Your task to perform on an android device: Open calendar and show me the fourth week of next month Image 0: 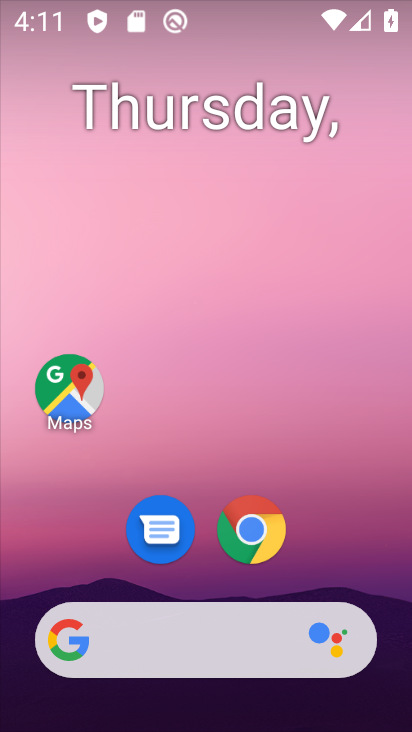
Step 0: click (192, 238)
Your task to perform on an android device: Open calendar and show me the fourth week of next month Image 1: 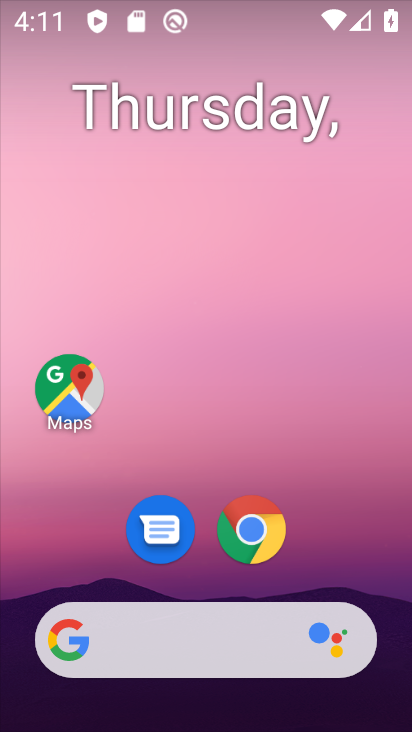
Step 1: drag from (97, 554) to (210, 142)
Your task to perform on an android device: Open calendar and show me the fourth week of next month Image 2: 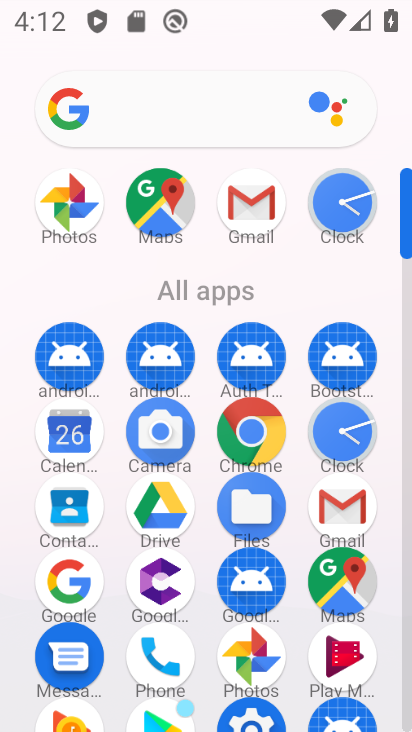
Step 2: click (92, 442)
Your task to perform on an android device: Open calendar and show me the fourth week of next month Image 3: 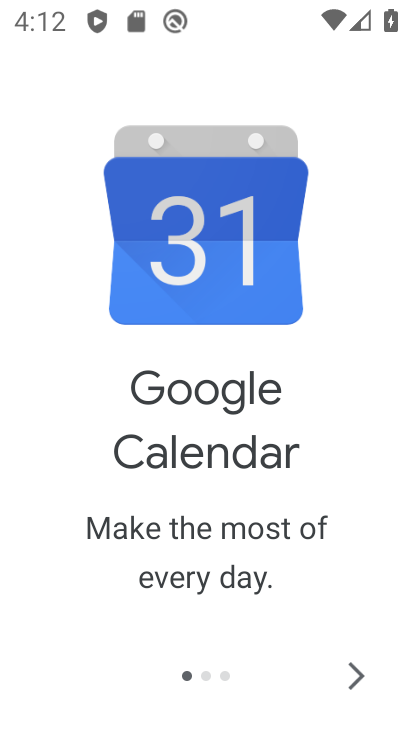
Step 3: click (359, 666)
Your task to perform on an android device: Open calendar and show me the fourth week of next month Image 4: 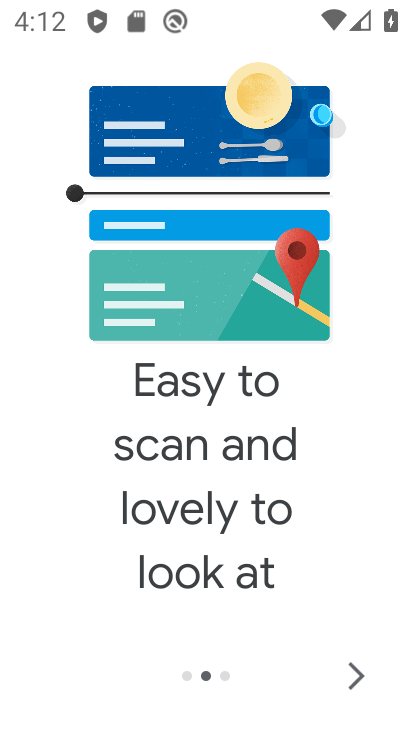
Step 4: click (364, 690)
Your task to perform on an android device: Open calendar and show me the fourth week of next month Image 5: 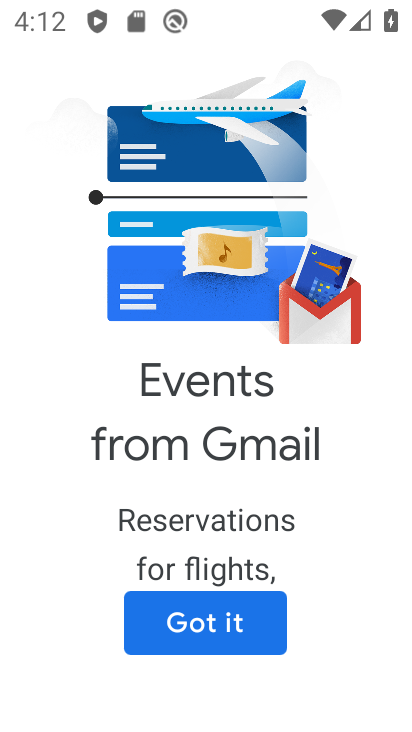
Step 5: click (265, 612)
Your task to perform on an android device: Open calendar and show me the fourth week of next month Image 6: 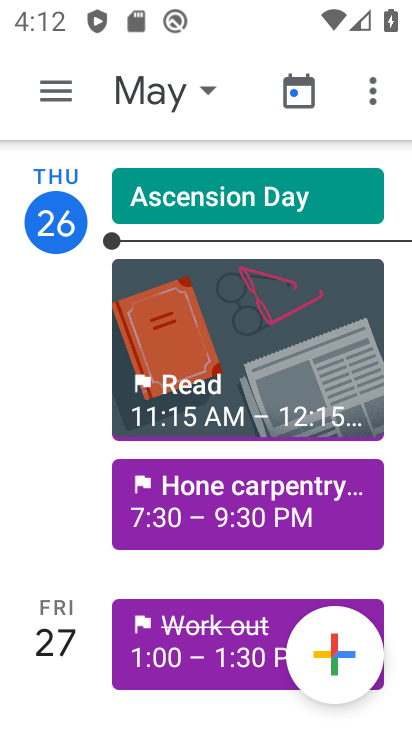
Step 6: click (145, 98)
Your task to perform on an android device: Open calendar and show me the fourth week of next month Image 7: 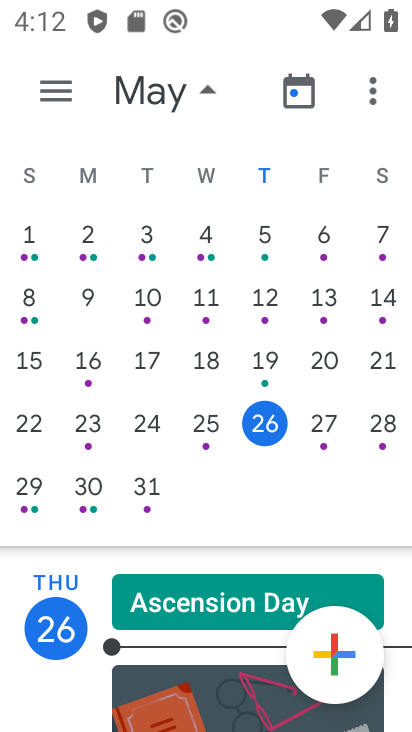
Step 7: drag from (175, 475) to (47, 448)
Your task to perform on an android device: Open calendar and show me the fourth week of next month Image 8: 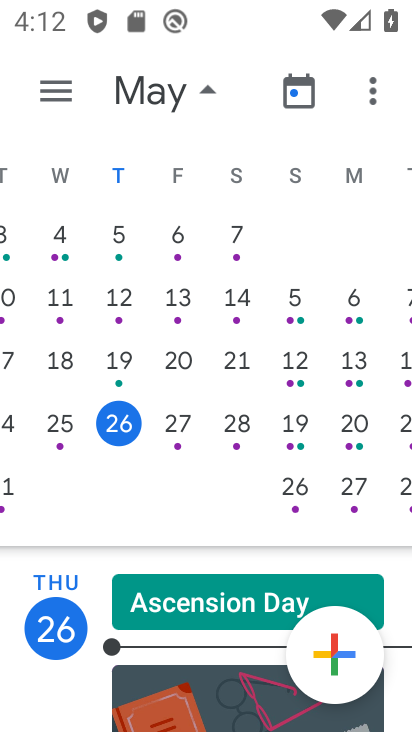
Step 8: drag from (300, 306) to (134, 435)
Your task to perform on an android device: Open calendar and show me the fourth week of next month Image 9: 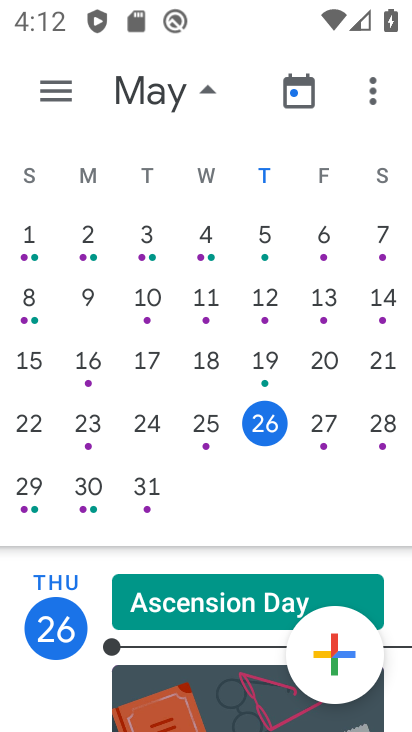
Step 9: drag from (392, 475) to (9, 462)
Your task to perform on an android device: Open calendar and show me the fourth week of next month Image 10: 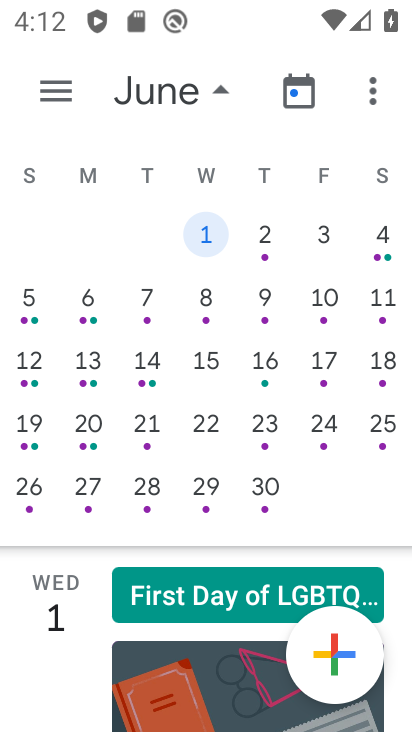
Step 10: click (29, 488)
Your task to perform on an android device: Open calendar and show me the fourth week of next month Image 11: 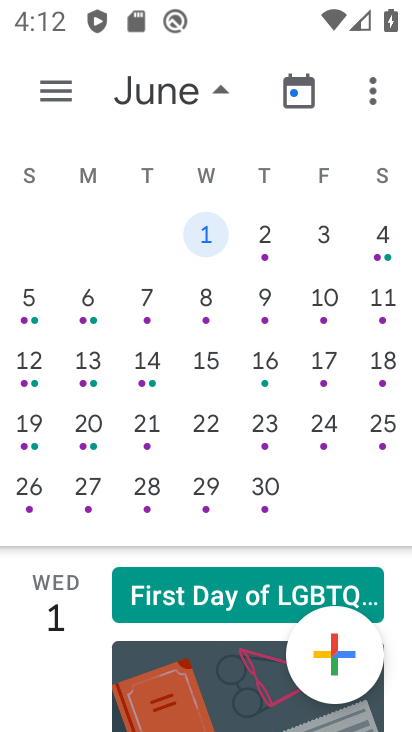
Step 11: click (38, 488)
Your task to perform on an android device: Open calendar and show me the fourth week of next month Image 12: 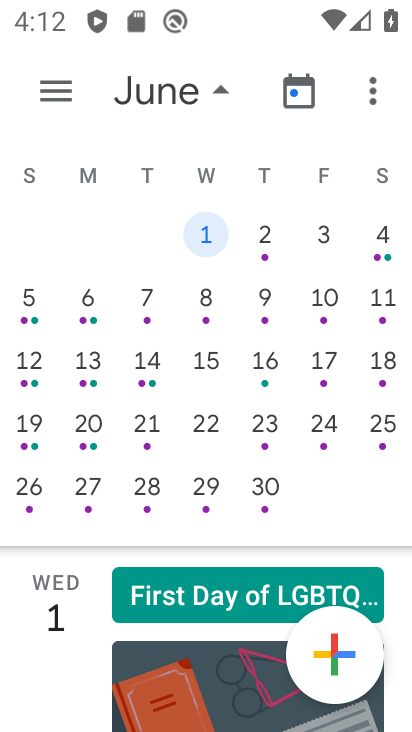
Step 12: click (39, 488)
Your task to perform on an android device: Open calendar and show me the fourth week of next month Image 13: 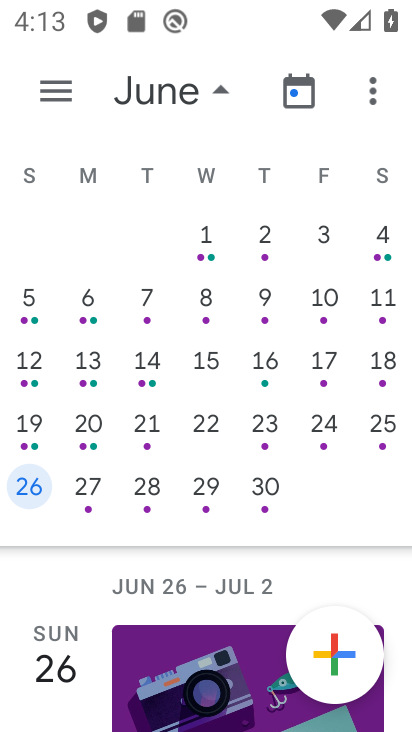
Step 13: click (67, 92)
Your task to perform on an android device: Open calendar and show me the fourth week of next month Image 14: 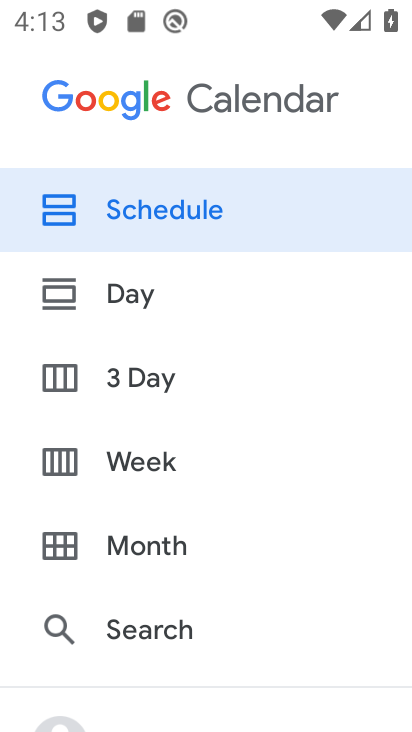
Step 14: click (160, 467)
Your task to perform on an android device: Open calendar and show me the fourth week of next month Image 15: 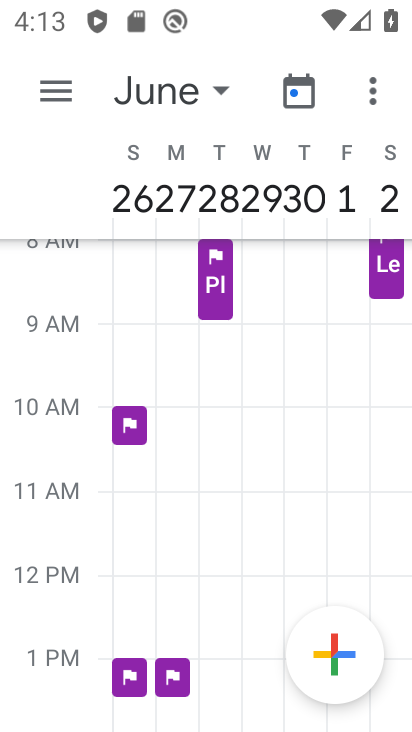
Step 15: task complete